Your task to perform on an android device: Open sound settings Image 0: 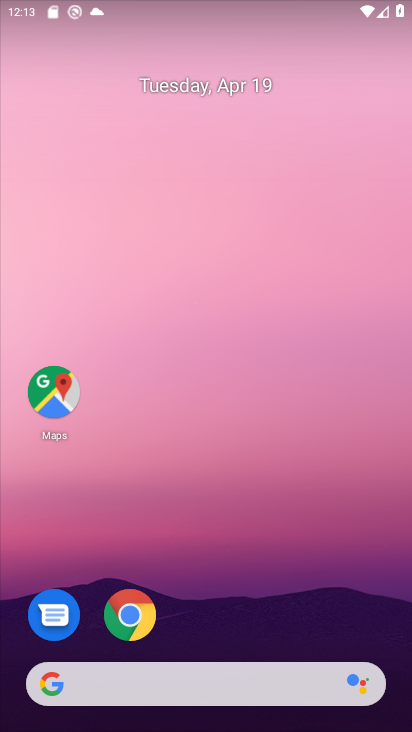
Step 0: drag from (205, 572) to (205, 243)
Your task to perform on an android device: Open sound settings Image 1: 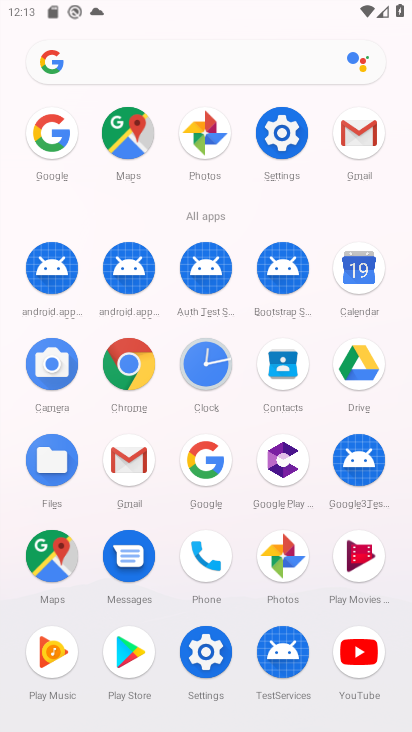
Step 1: click (276, 132)
Your task to perform on an android device: Open sound settings Image 2: 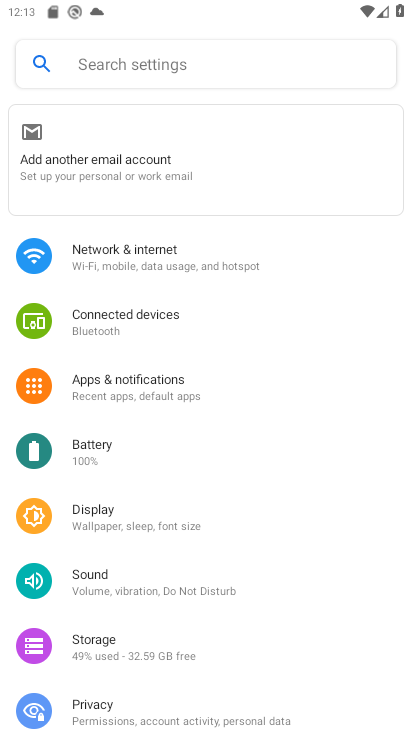
Step 2: click (125, 579)
Your task to perform on an android device: Open sound settings Image 3: 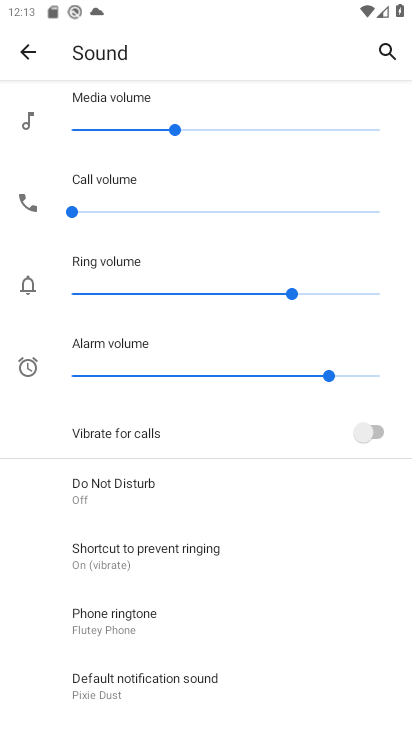
Step 3: drag from (168, 691) to (183, 332)
Your task to perform on an android device: Open sound settings Image 4: 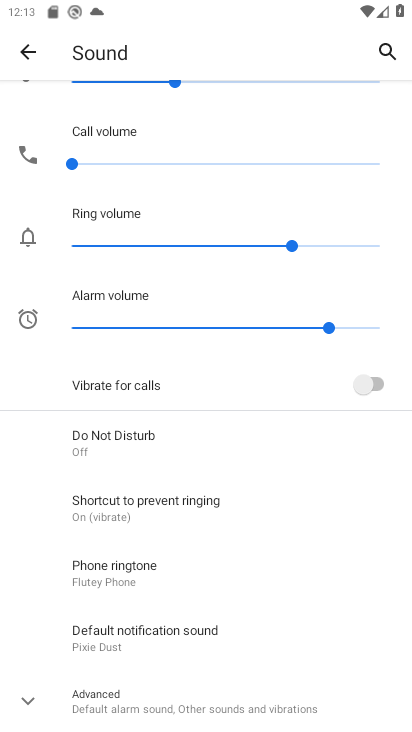
Step 4: click (35, 697)
Your task to perform on an android device: Open sound settings Image 5: 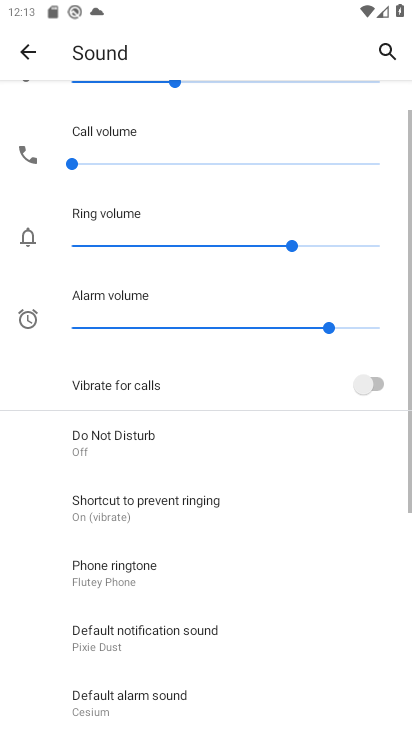
Step 5: task complete